Your task to perform on an android device: Open the calendar and show me this week's events? Image 0: 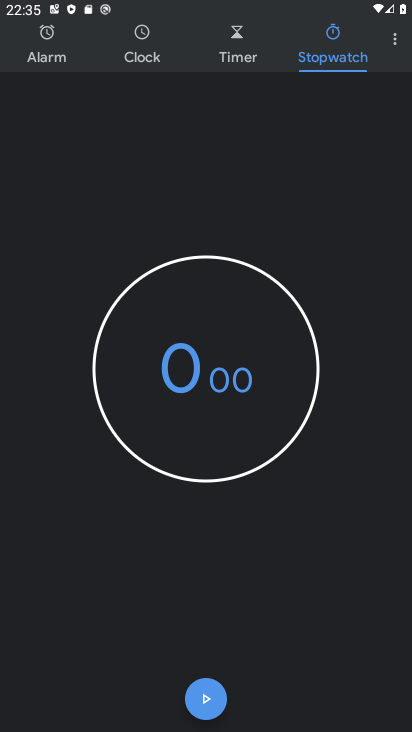
Step 0: press back button
Your task to perform on an android device: Open the calendar and show me this week's events? Image 1: 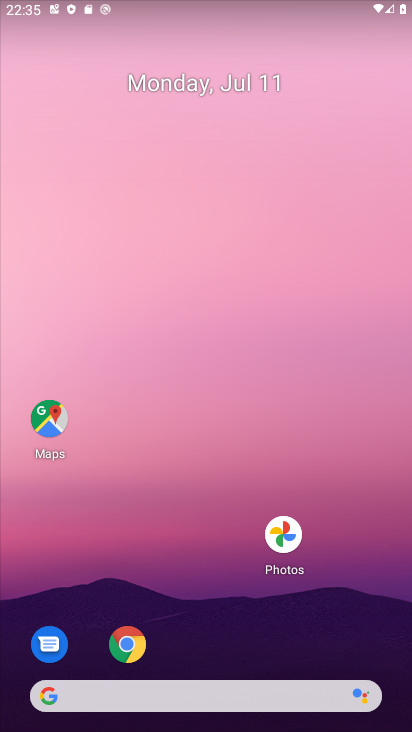
Step 1: drag from (224, 608) to (143, 39)
Your task to perform on an android device: Open the calendar and show me this week's events? Image 2: 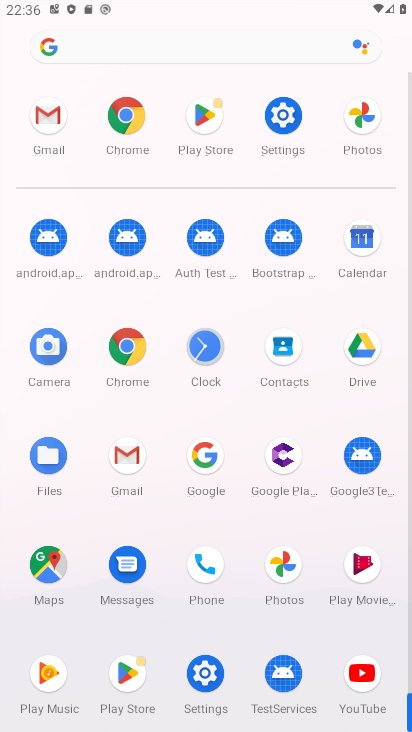
Step 2: click (360, 238)
Your task to perform on an android device: Open the calendar and show me this week's events? Image 3: 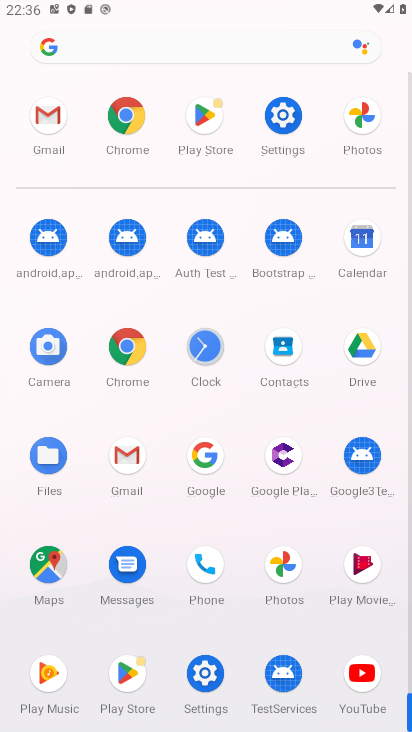
Step 3: click (360, 238)
Your task to perform on an android device: Open the calendar and show me this week's events? Image 4: 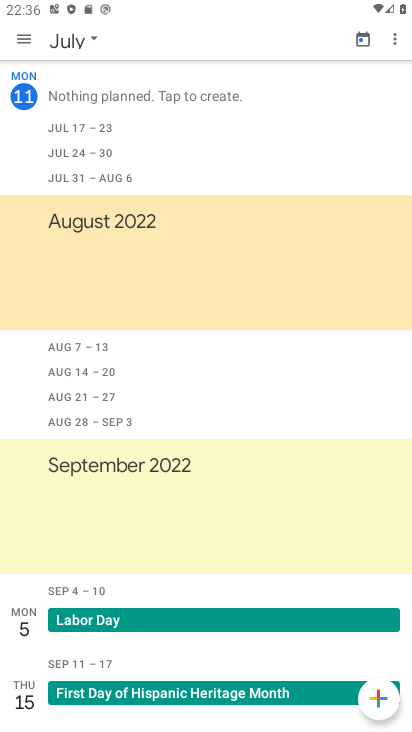
Step 4: click (97, 38)
Your task to perform on an android device: Open the calendar and show me this week's events? Image 5: 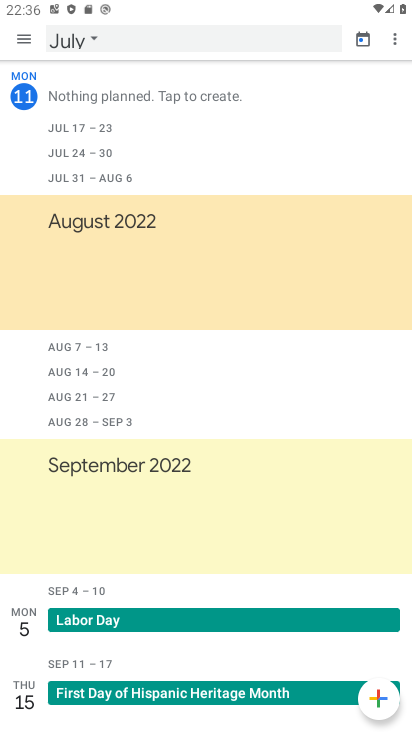
Step 5: click (97, 38)
Your task to perform on an android device: Open the calendar and show me this week's events? Image 6: 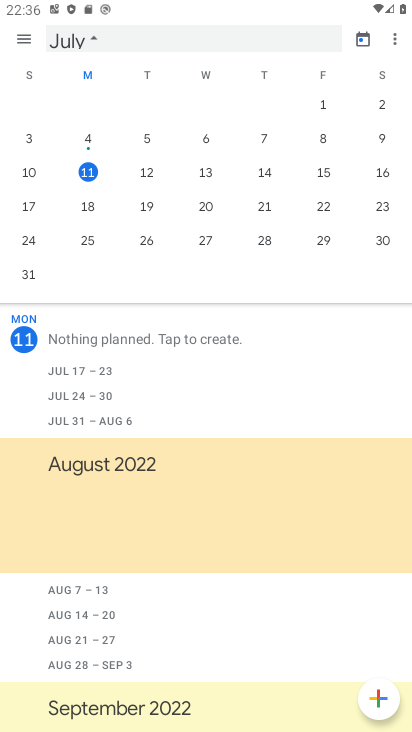
Step 6: click (97, 38)
Your task to perform on an android device: Open the calendar and show me this week's events? Image 7: 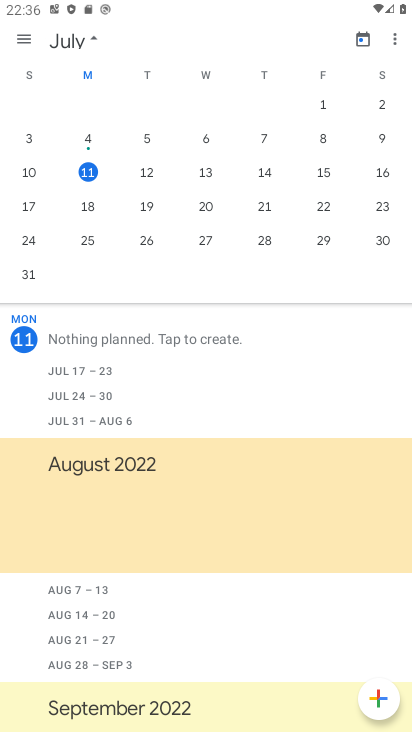
Step 7: click (377, 172)
Your task to perform on an android device: Open the calendar and show me this week's events? Image 8: 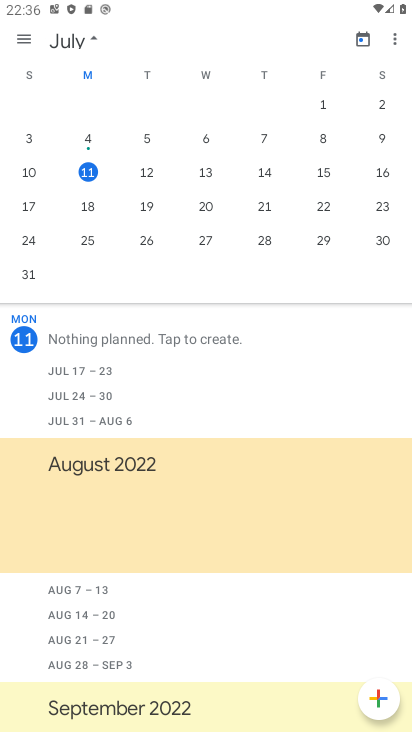
Step 8: click (372, 170)
Your task to perform on an android device: Open the calendar and show me this week's events? Image 9: 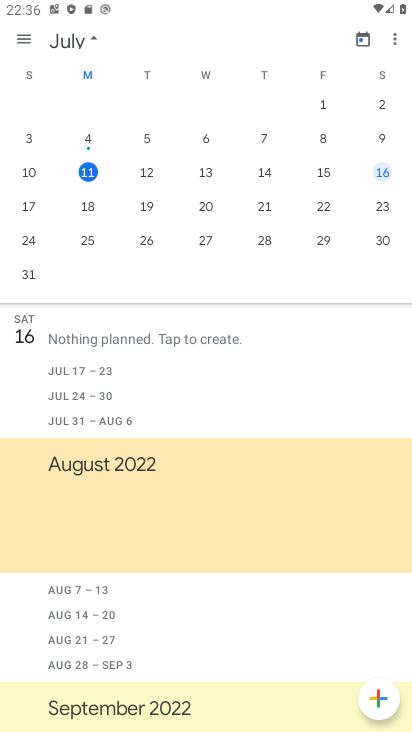
Step 9: click (371, 169)
Your task to perform on an android device: Open the calendar and show me this week's events? Image 10: 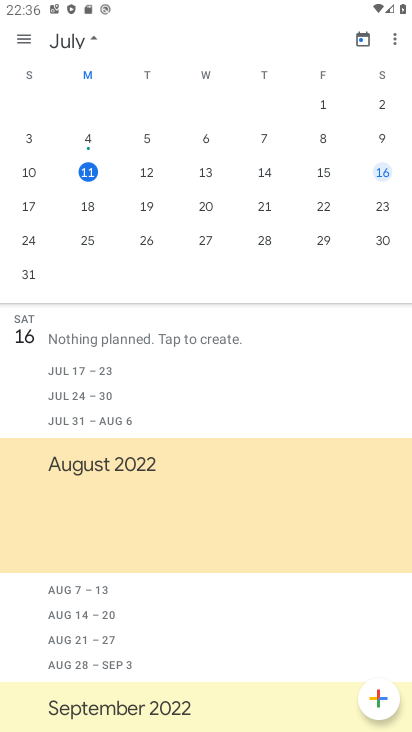
Step 10: task complete